Your task to perform on an android device: change notification settings in the gmail app Image 0: 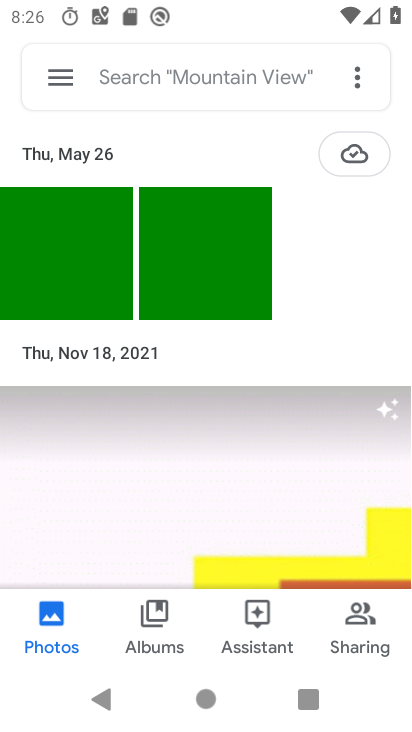
Step 0: press home button
Your task to perform on an android device: change notification settings in the gmail app Image 1: 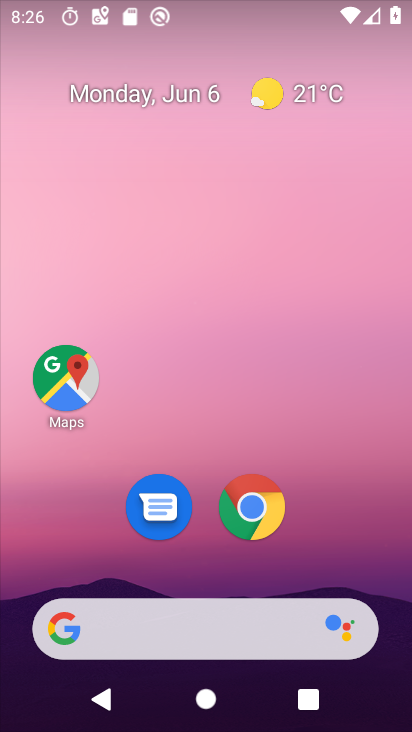
Step 1: drag from (360, 547) to (352, 112)
Your task to perform on an android device: change notification settings in the gmail app Image 2: 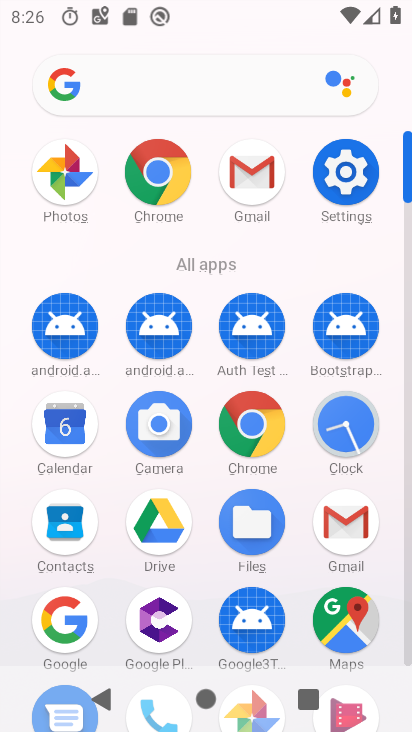
Step 2: click (255, 175)
Your task to perform on an android device: change notification settings in the gmail app Image 3: 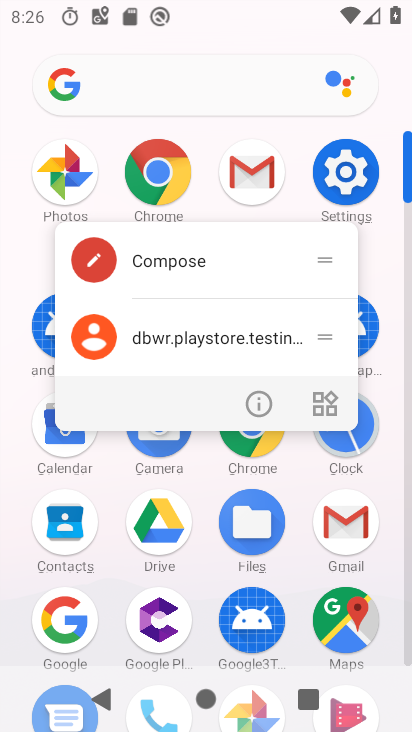
Step 3: click (247, 403)
Your task to perform on an android device: change notification settings in the gmail app Image 4: 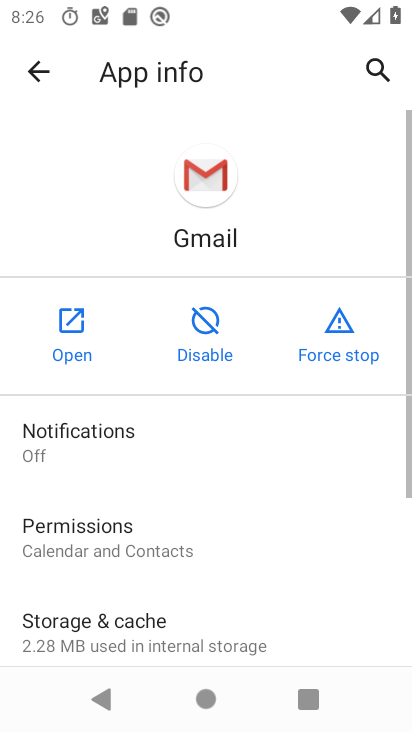
Step 4: click (126, 427)
Your task to perform on an android device: change notification settings in the gmail app Image 5: 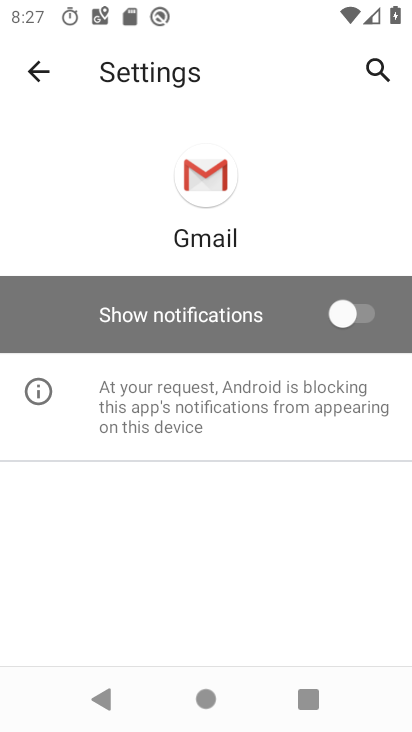
Step 5: click (222, 322)
Your task to perform on an android device: change notification settings in the gmail app Image 6: 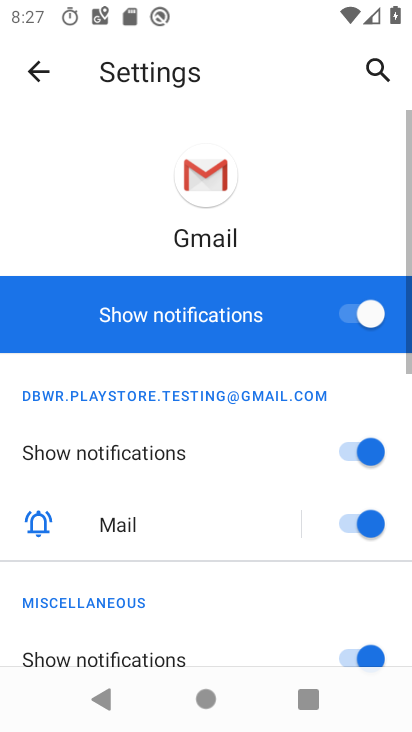
Step 6: task complete